Your task to perform on an android device: turn off wifi Image 0: 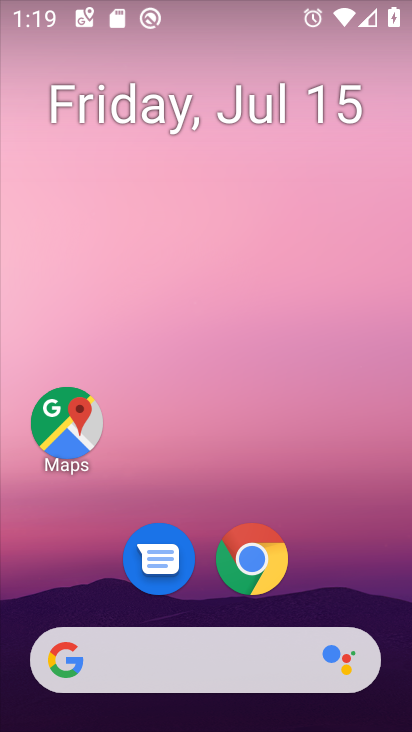
Step 0: drag from (352, 592) to (356, 155)
Your task to perform on an android device: turn off wifi Image 1: 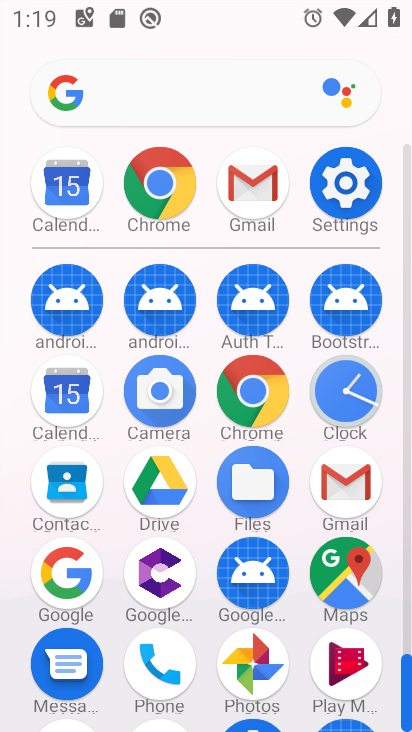
Step 1: click (354, 185)
Your task to perform on an android device: turn off wifi Image 2: 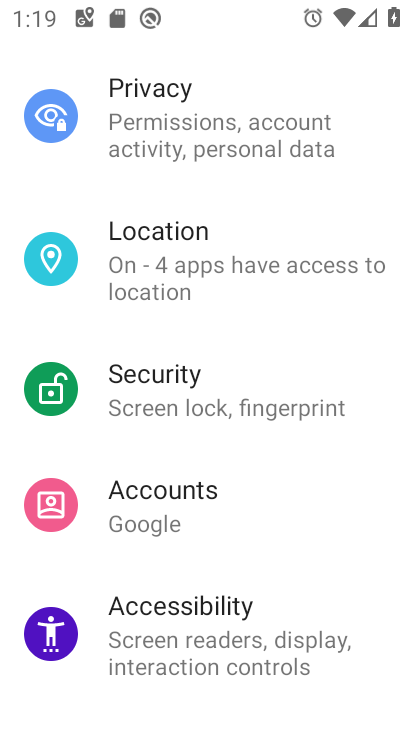
Step 2: drag from (354, 185) to (348, 276)
Your task to perform on an android device: turn off wifi Image 3: 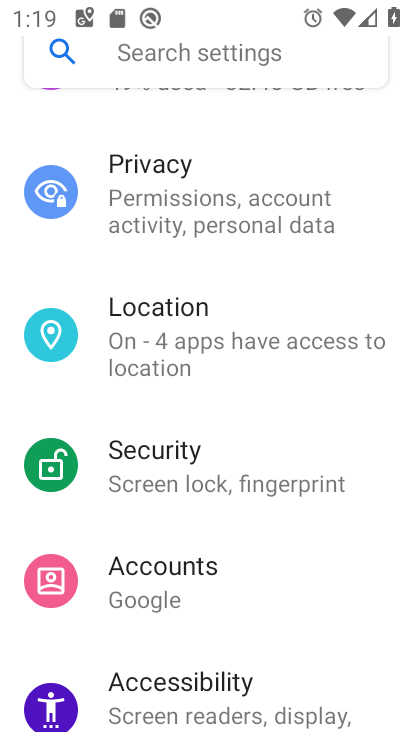
Step 3: drag from (350, 226) to (342, 361)
Your task to perform on an android device: turn off wifi Image 4: 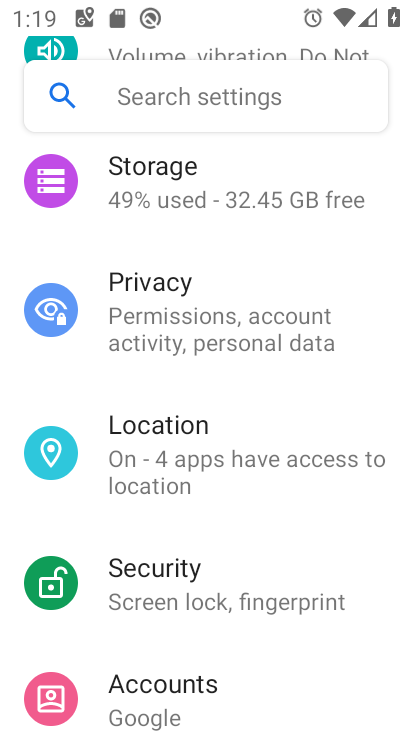
Step 4: drag from (365, 286) to (368, 376)
Your task to perform on an android device: turn off wifi Image 5: 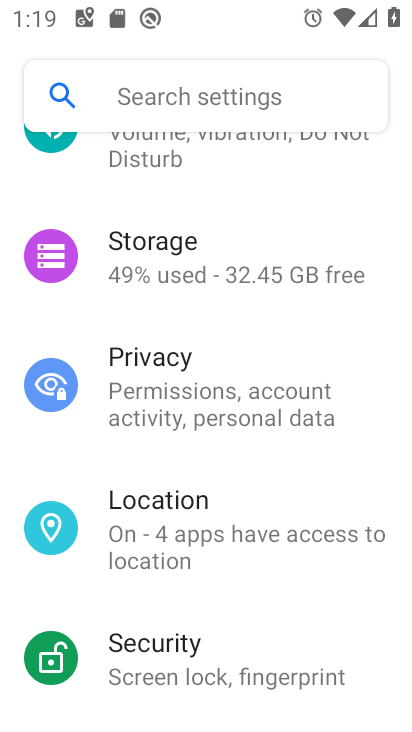
Step 5: drag from (362, 311) to (363, 402)
Your task to perform on an android device: turn off wifi Image 6: 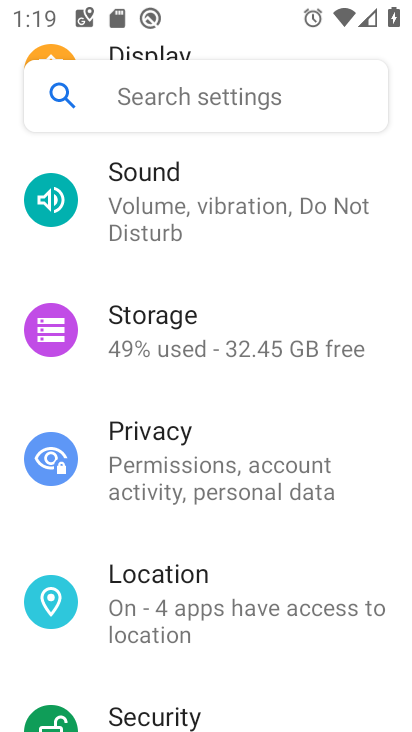
Step 6: drag from (368, 302) to (368, 403)
Your task to perform on an android device: turn off wifi Image 7: 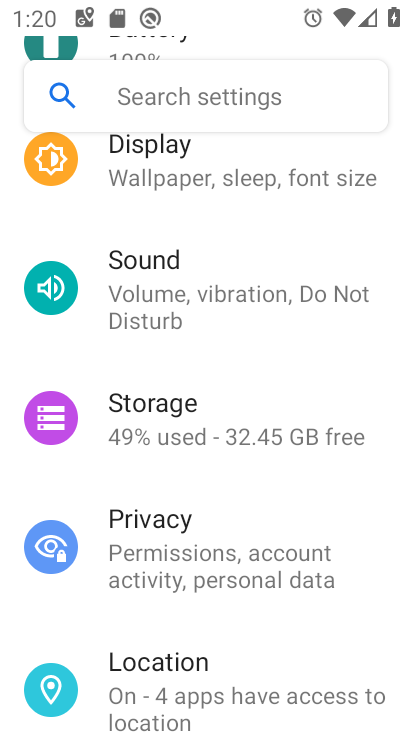
Step 7: drag from (366, 337) to (366, 427)
Your task to perform on an android device: turn off wifi Image 8: 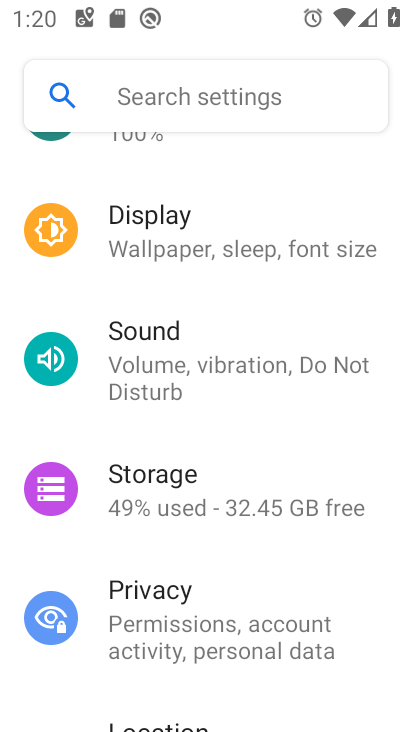
Step 8: drag from (368, 313) to (367, 406)
Your task to perform on an android device: turn off wifi Image 9: 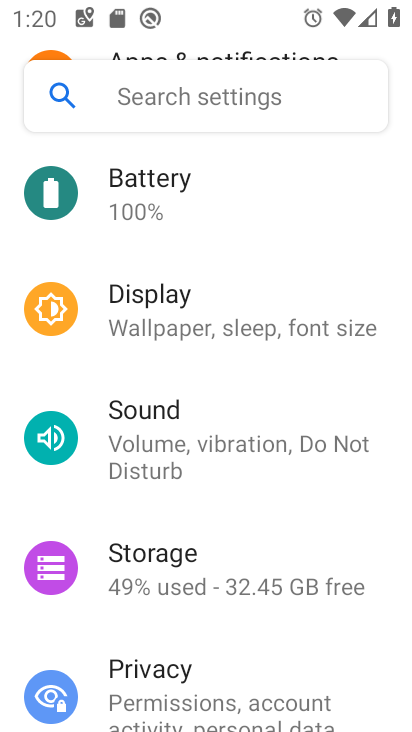
Step 9: drag from (376, 269) to (380, 363)
Your task to perform on an android device: turn off wifi Image 10: 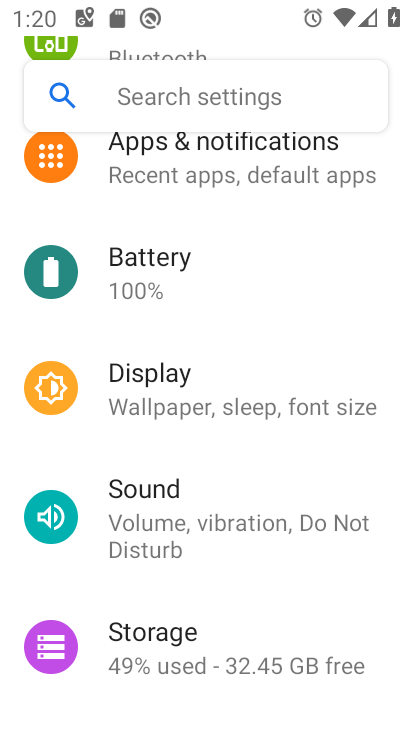
Step 10: drag from (378, 292) to (376, 406)
Your task to perform on an android device: turn off wifi Image 11: 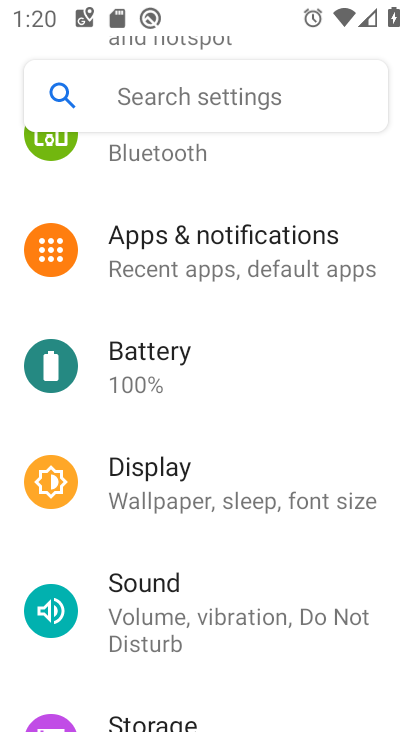
Step 11: drag from (371, 341) to (371, 427)
Your task to perform on an android device: turn off wifi Image 12: 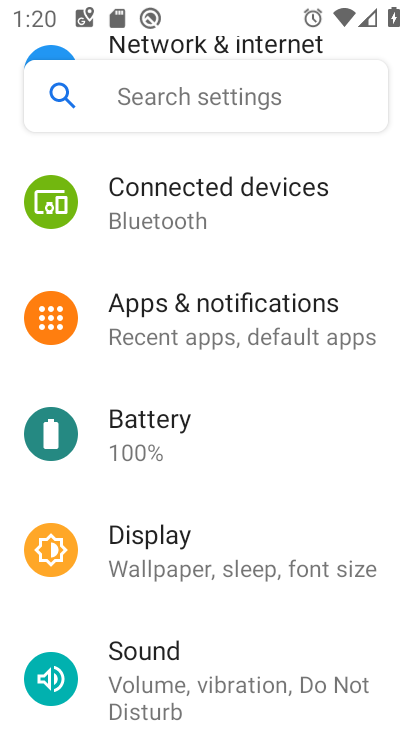
Step 12: drag from (370, 297) to (369, 394)
Your task to perform on an android device: turn off wifi Image 13: 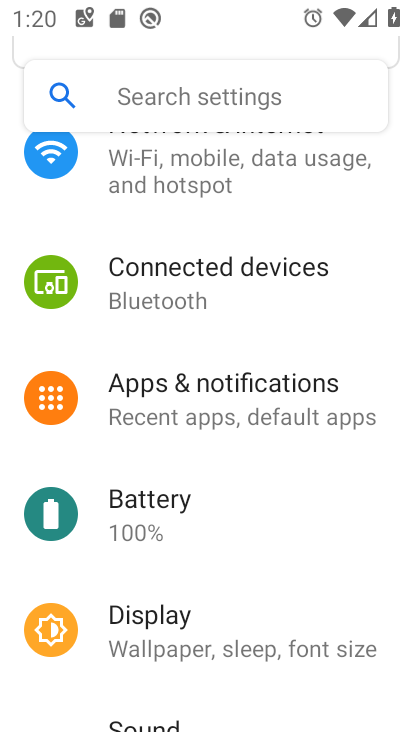
Step 13: drag from (383, 302) to (383, 416)
Your task to perform on an android device: turn off wifi Image 14: 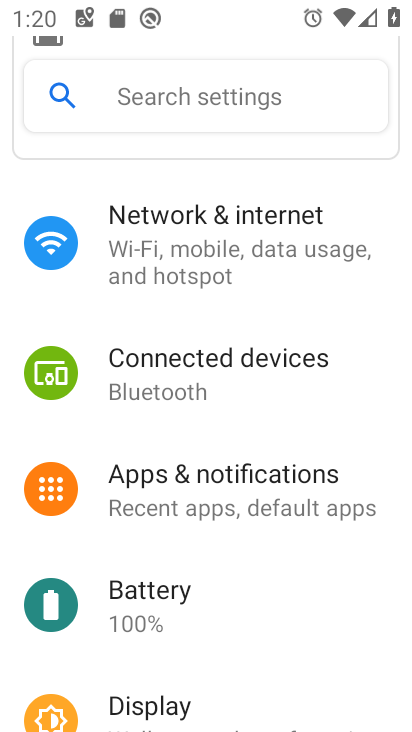
Step 14: drag from (372, 326) to (369, 399)
Your task to perform on an android device: turn off wifi Image 15: 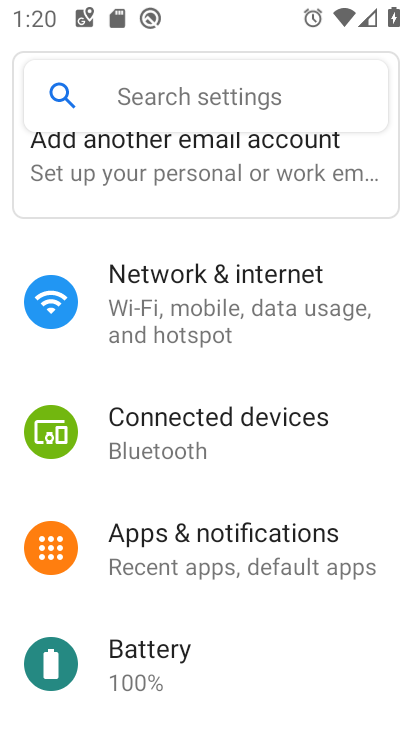
Step 15: click (269, 323)
Your task to perform on an android device: turn off wifi Image 16: 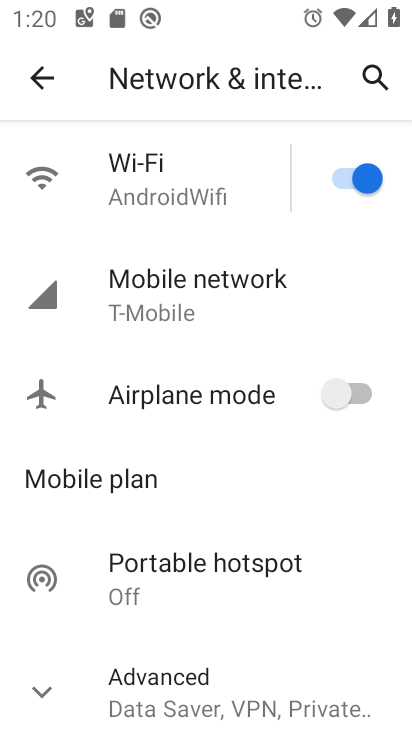
Step 16: click (370, 183)
Your task to perform on an android device: turn off wifi Image 17: 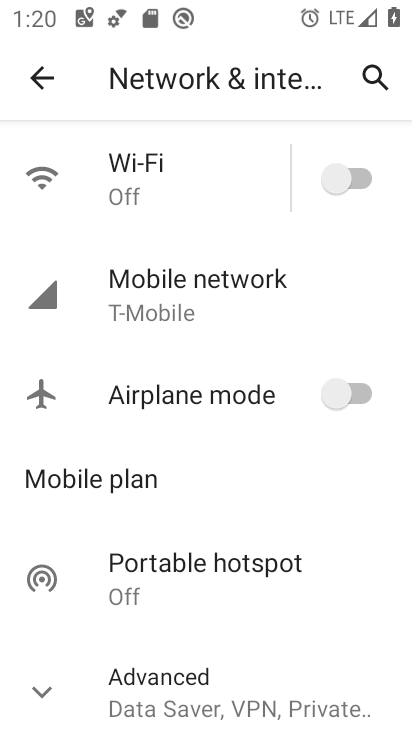
Step 17: task complete